Your task to perform on an android device: Search for vegetarian restaurants on Maps Image 0: 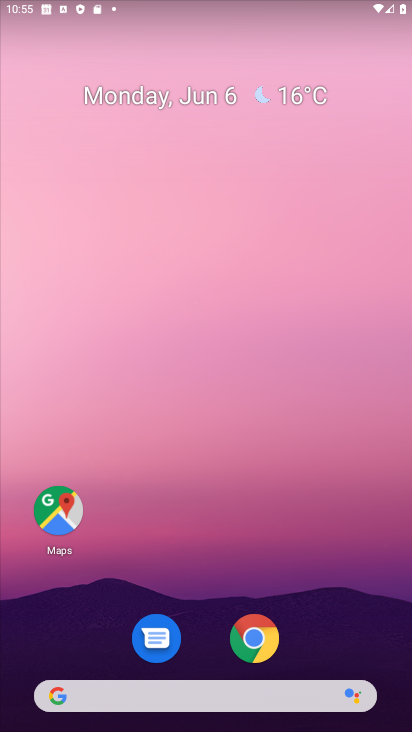
Step 0: drag from (251, 717) to (324, 202)
Your task to perform on an android device: Search for vegetarian restaurants on Maps Image 1: 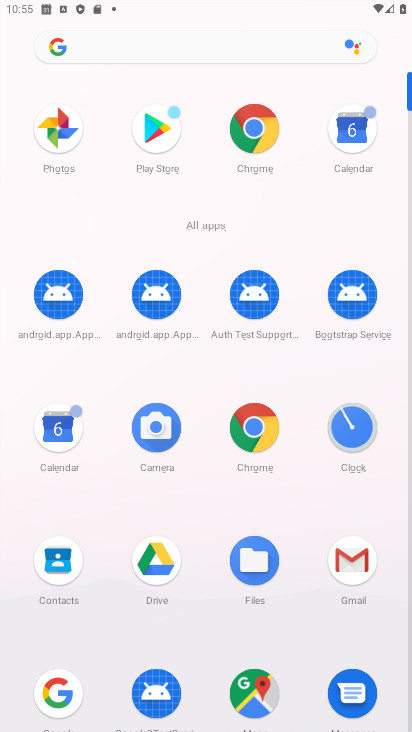
Step 1: click (256, 673)
Your task to perform on an android device: Search for vegetarian restaurants on Maps Image 2: 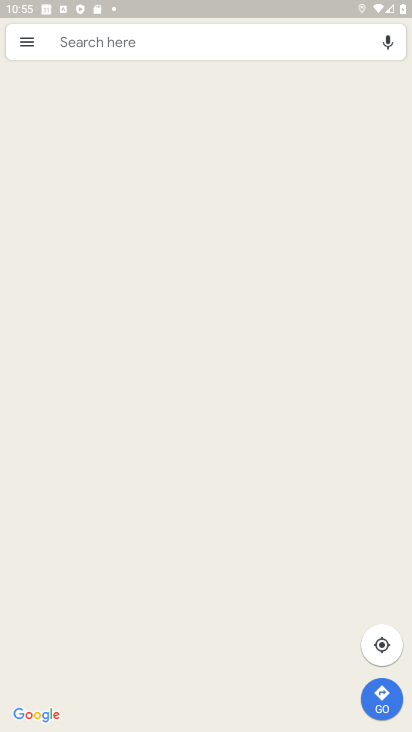
Step 2: click (140, 47)
Your task to perform on an android device: Search for vegetarian restaurants on Maps Image 3: 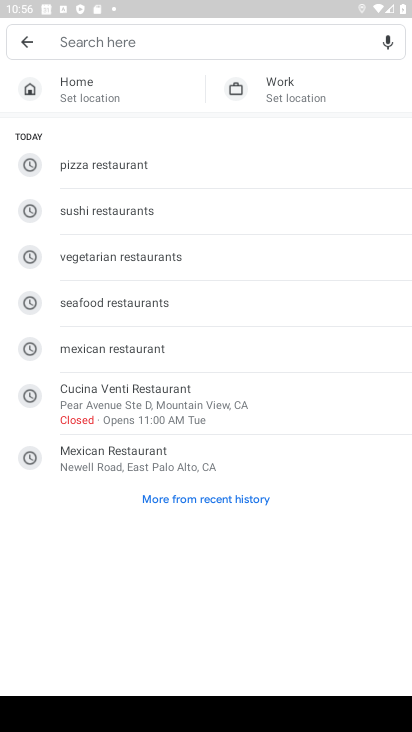
Step 3: drag from (366, 707) to (359, 557)
Your task to perform on an android device: Search for vegetarian restaurants on Maps Image 4: 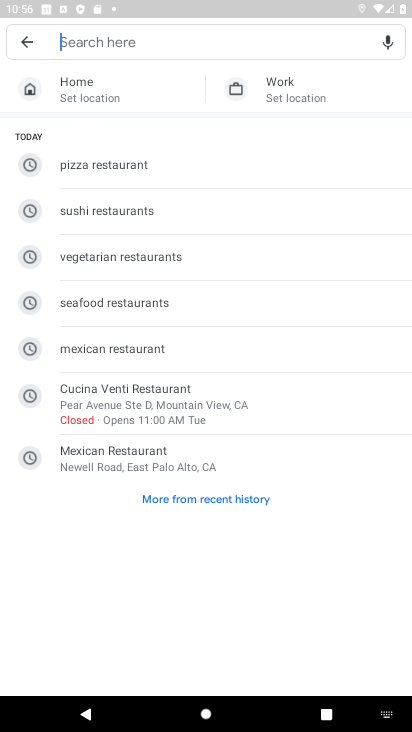
Step 4: click (392, 715)
Your task to perform on an android device: Search for vegetarian restaurants on Maps Image 5: 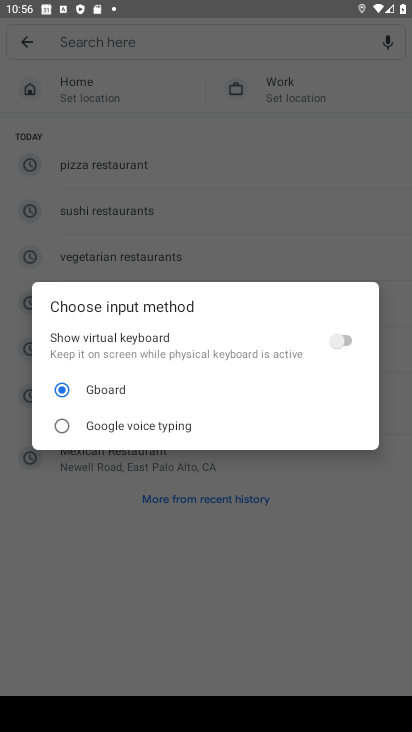
Step 5: click (348, 337)
Your task to perform on an android device: Search for vegetarian restaurants on Maps Image 6: 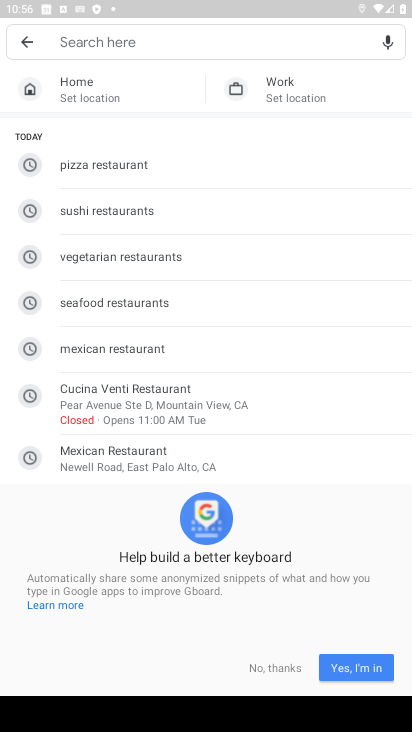
Step 6: click (281, 668)
Your task to perform on an android device: Search for vegetarian restaurants on Maps Image 7: 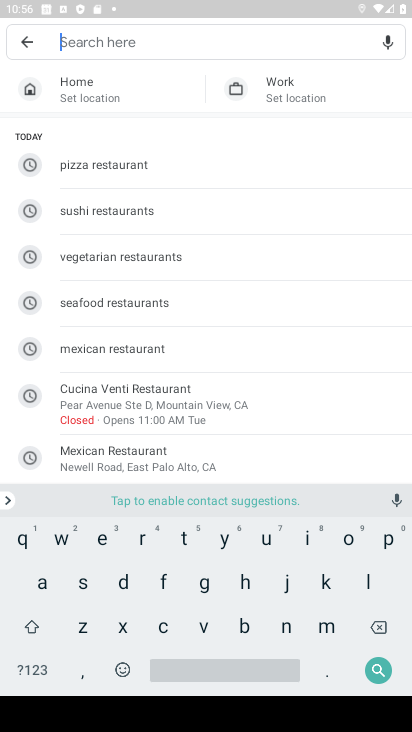
Step 7: click (93, 253)
Your task to perform on an android device: Search for vegetarian restaurants on Maps Image 8: 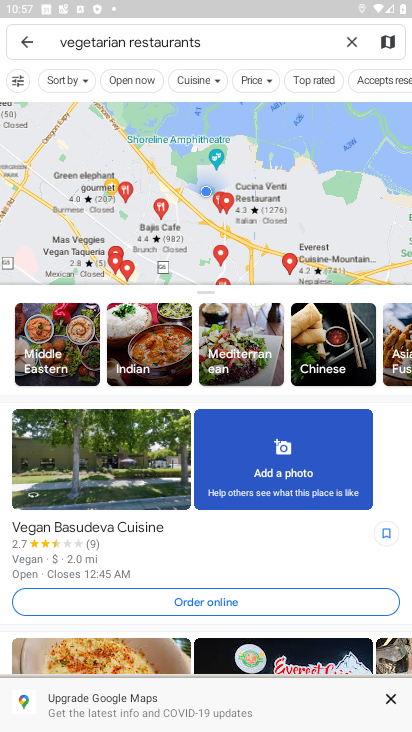
Step 8: task complete